Your task to perform on an android device: toggle javascript in the chrome app Image 0: 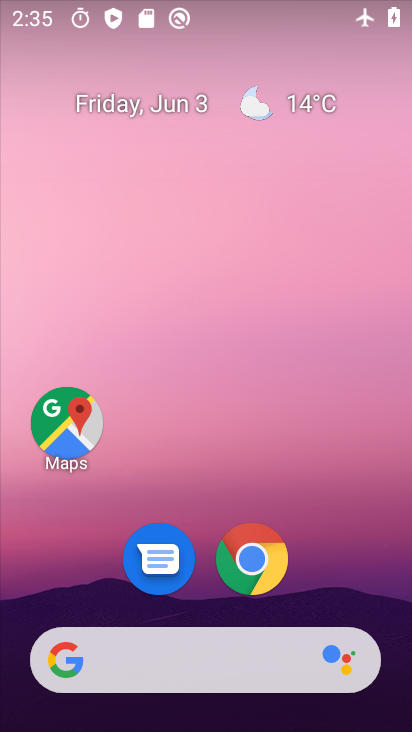
Step 0: click (255, 571)
Your task to perform on an android device: toggle javascript in the chrome app Image 1: 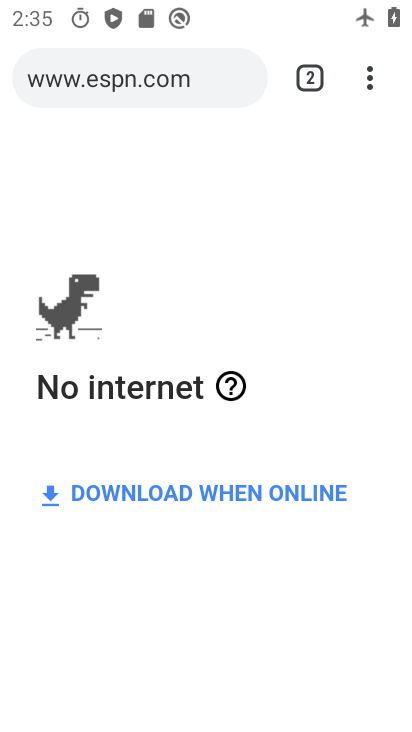
Step 1: drag from (377, 72) to (139, 626)
Your task to perform on an android device: toggle javascript in the chrome app Image 2: 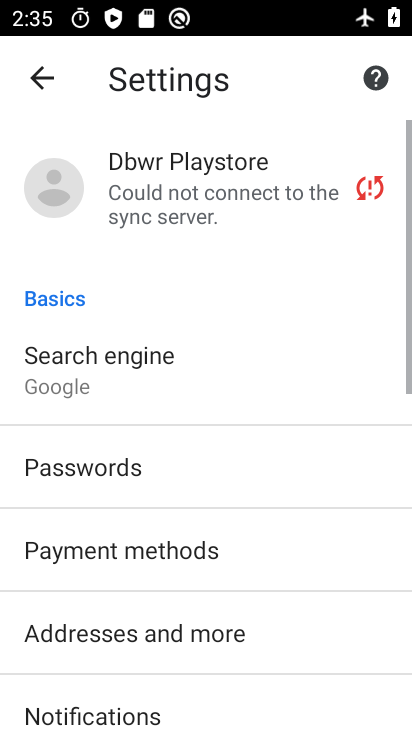
Step 2: drag from (139, 626) to (48, 55)
Your task to perform on an android device: toggle javascript in the chrome app Image 3: 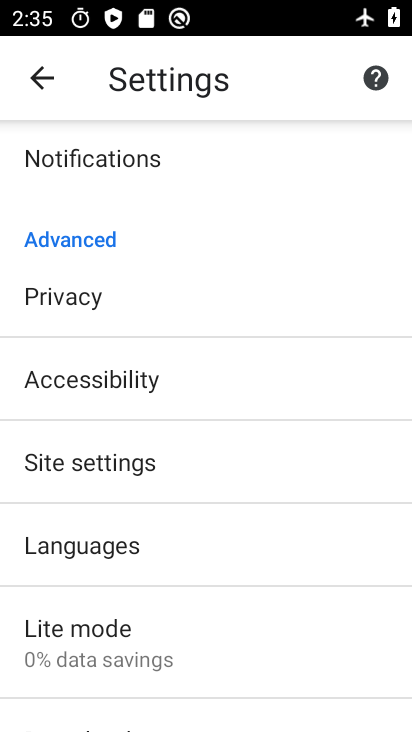
Step 3: click (104, 482)
Your task to perform on an android device: toggle javascript in the chrome app Image 4: 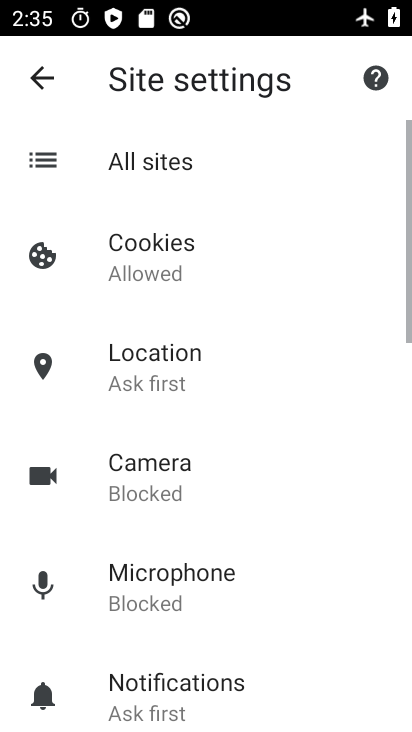
Step 4: drag from (166, 687) to (95, 181)
Your task to perform on an android device: toggle javascript in the chrome app Image 5: 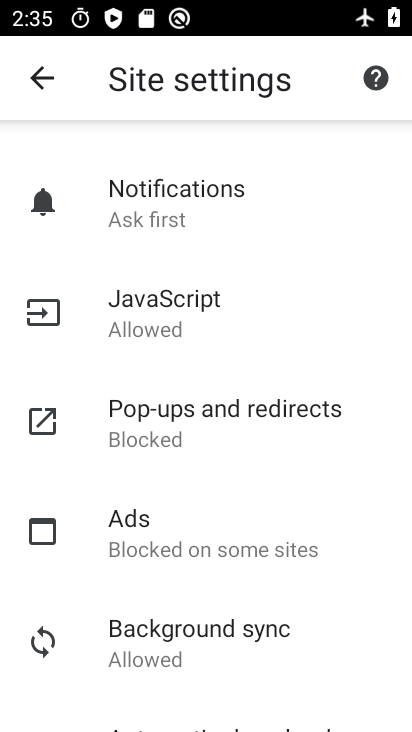
Step 5: click (136, 305)
Your task to perform on an android device: toggle javascript in the chrome app Image 6: 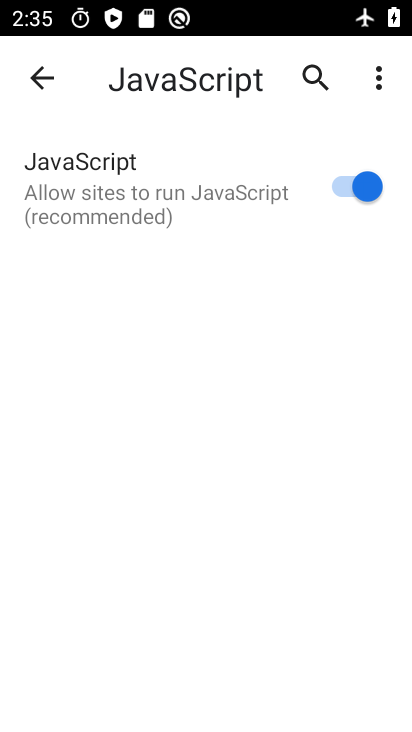
Step 6: click (346, 191)
Your task to perform on an android device: toggle javascript in the chrome app Image 7: 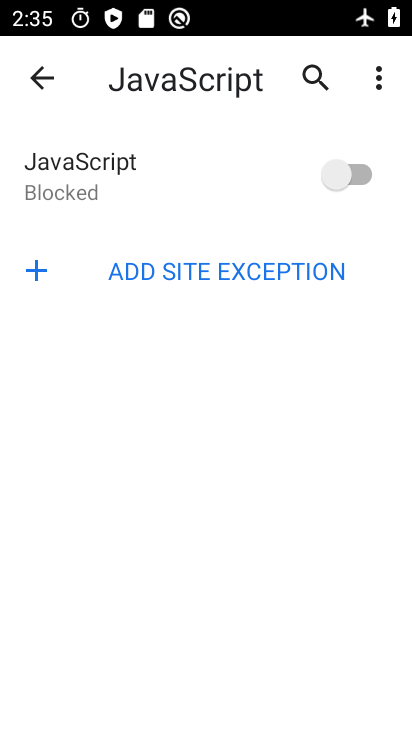
Step 7: task complete